Your task to perform on an android device: add a label to a message in the gmail app Image 0: 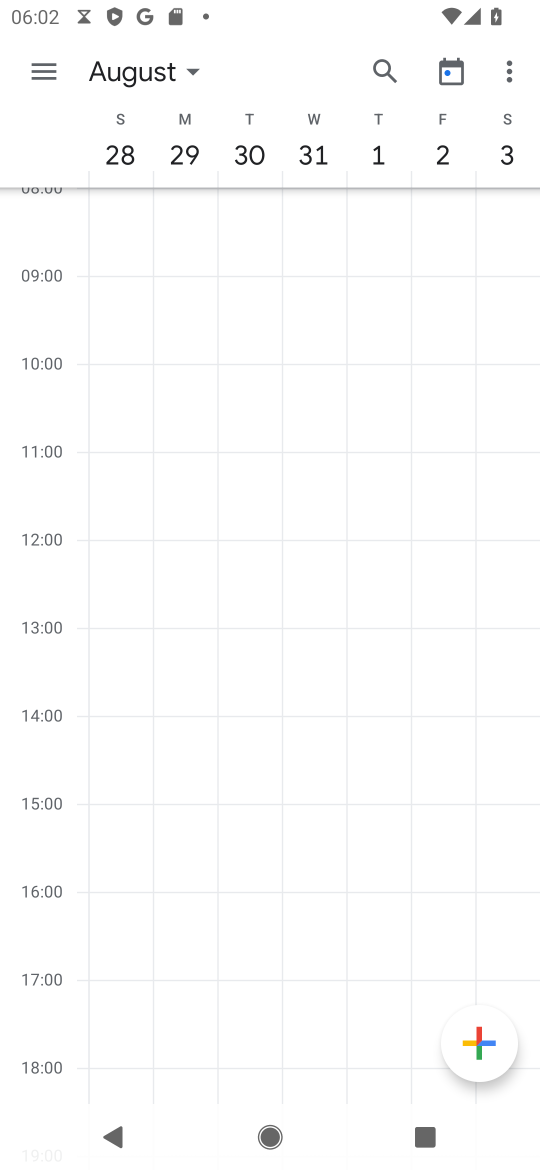
Step 0: press home button
Your task to perform on an android device: add a label to a message in the gmail app Image 1: 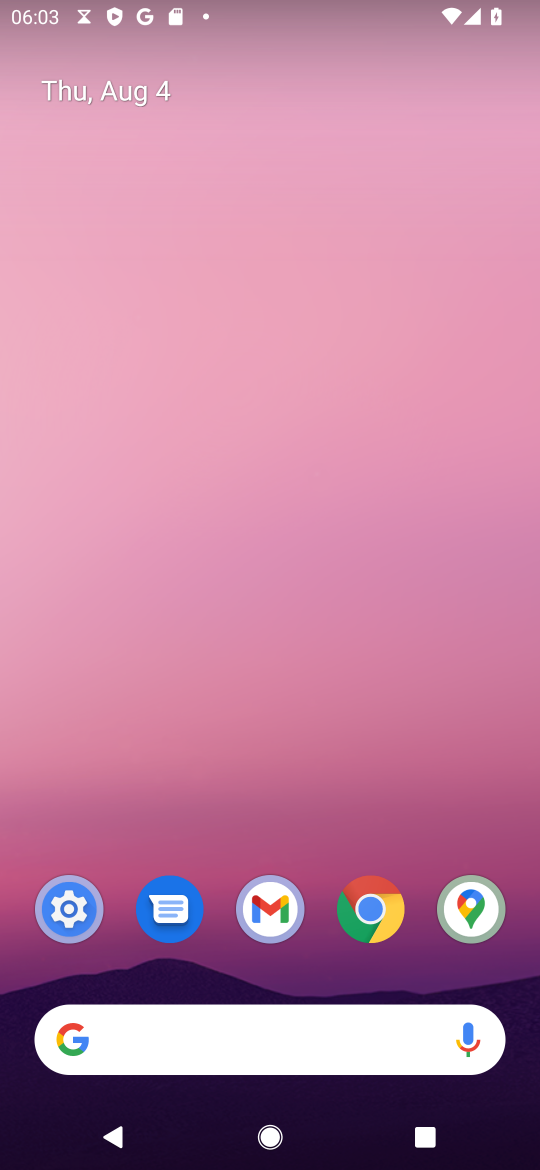
Step 1: click (271, 899)
Your task to perform on an android device: add a label to a message in the gmail app Image 2: 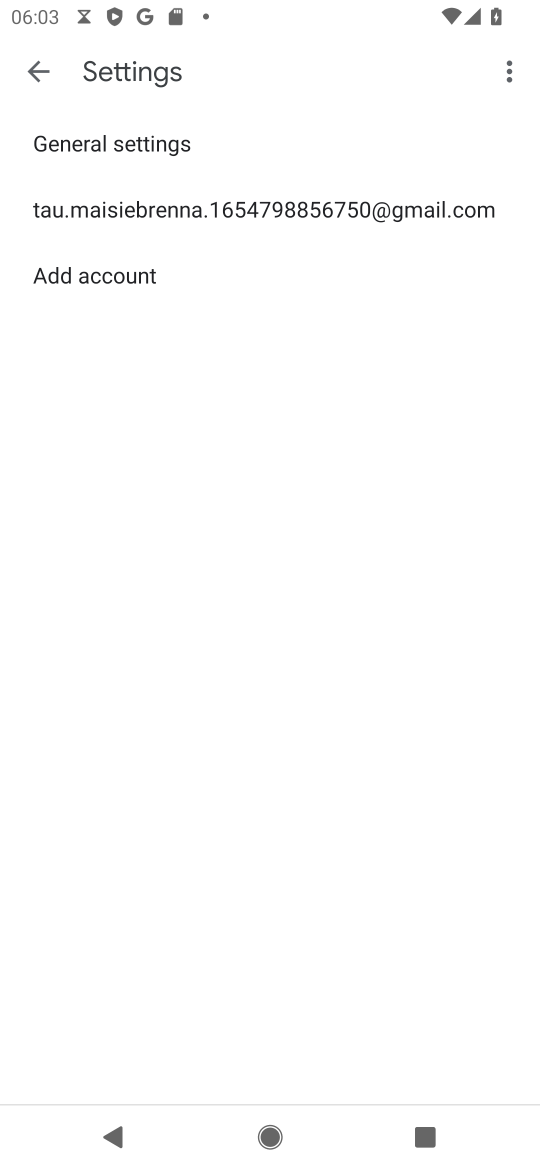
Step 2: click (32, 69)
Your task to perform on an android device: add a label to a message in the gmail app Image 3: 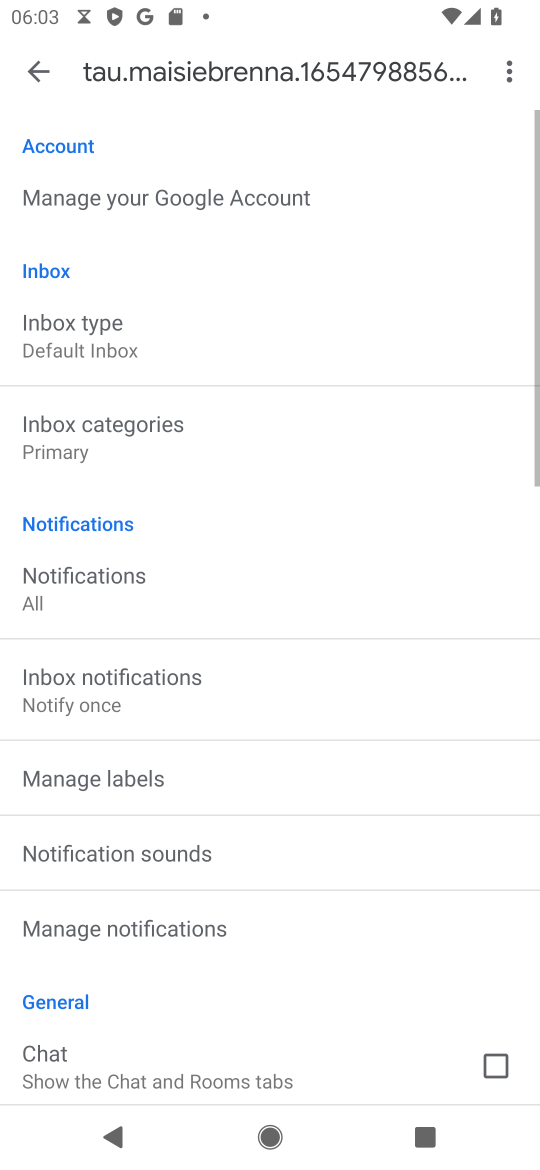
Step 3: click (32, 69)
Your task to perform on an android device: add a label to a message in the gmail app Image 4: 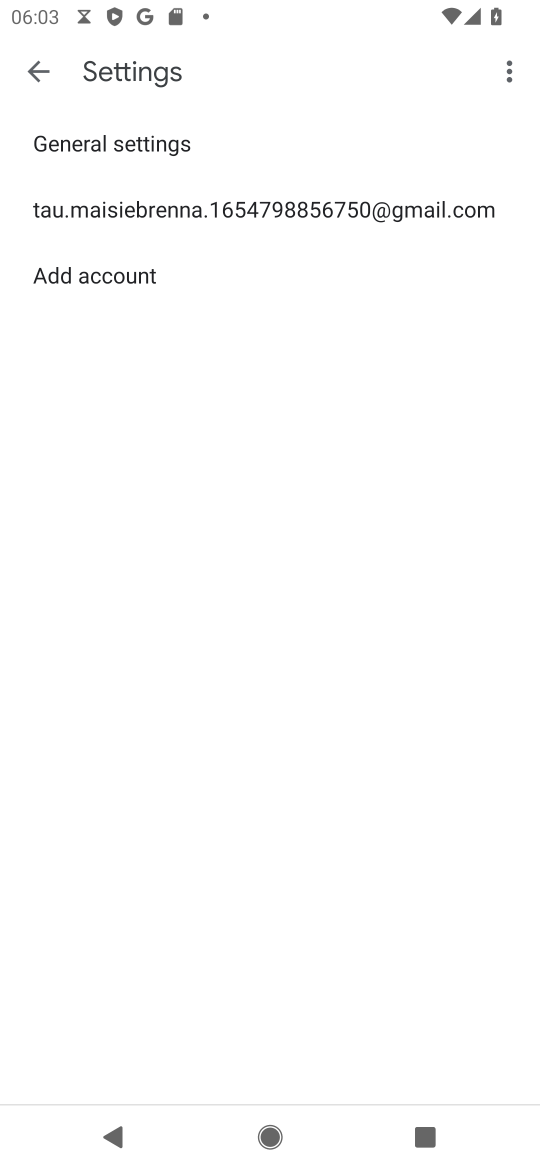
Step 4: click (32, 67)
Your task to perform on an android device: add a label to a message in the gmail app Image 5: 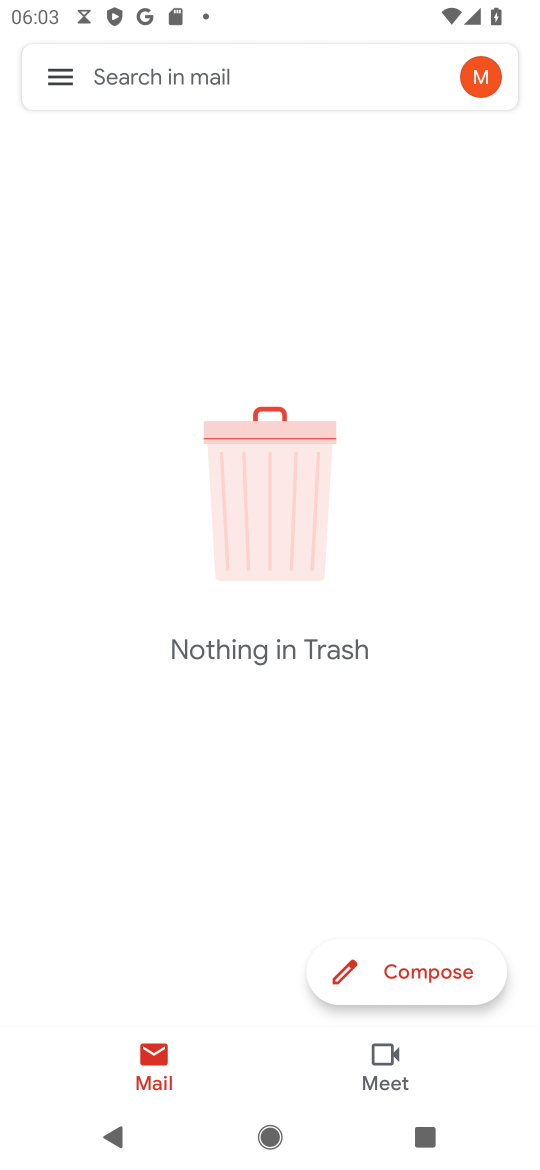
Step 5: click (63, 78)
Your task to perform on an android device: add a label to a message in the gmail app Image 6: 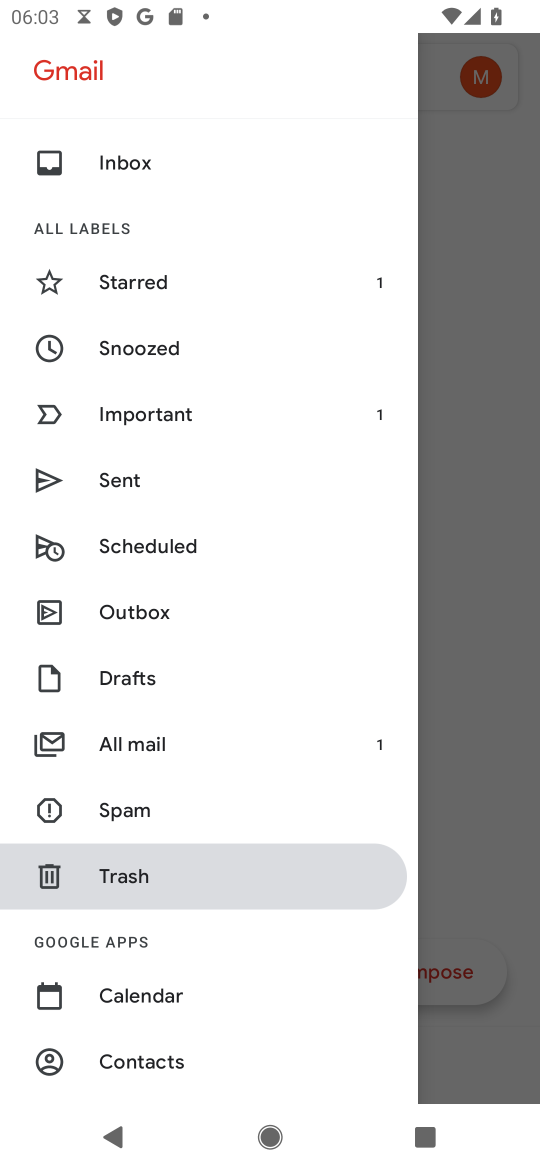
Step 6: click (170, 164)
Your task to perform on an android device: add a label to a message in the gmail app Image 7: 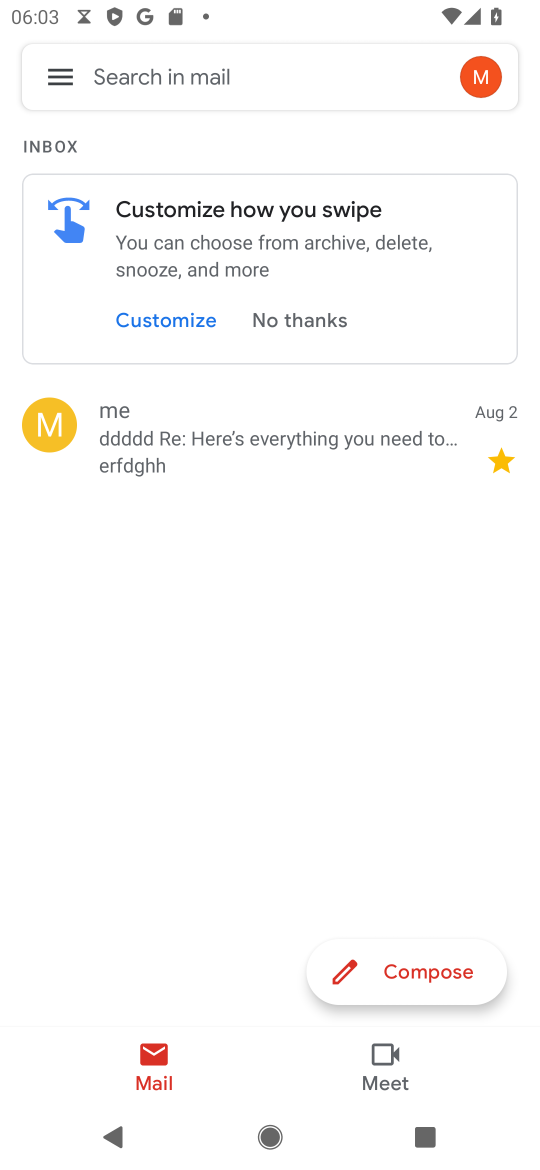
Step 7: click (277, 441)
Your task to perform on an android device: add a label to a message in the gmail app Image 8: 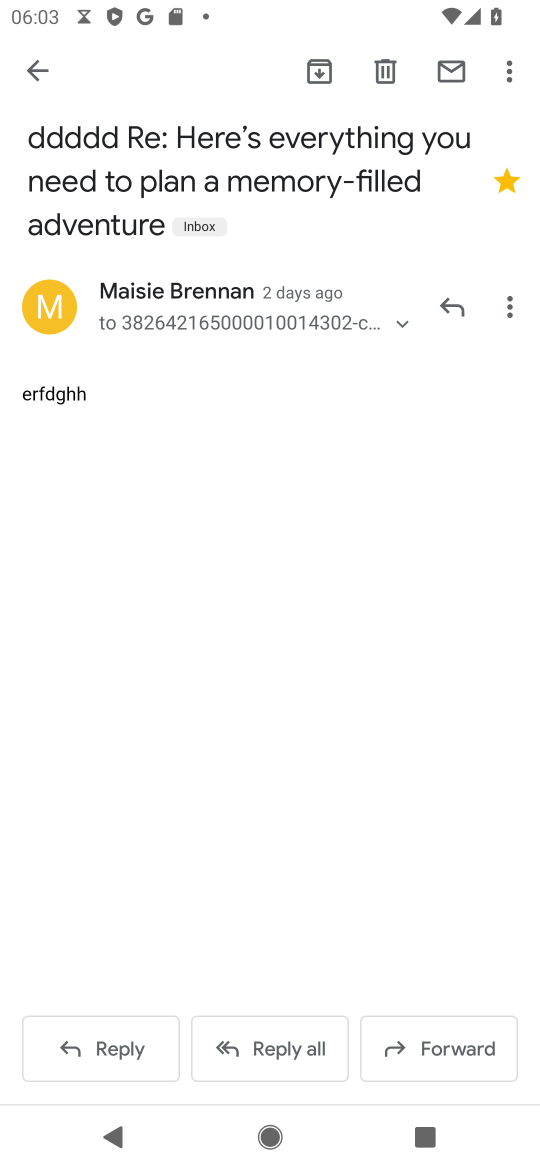
Step 8: click (199, 223)
Your task to perform on an android device: add a label to a message in the gmail app Image 9: 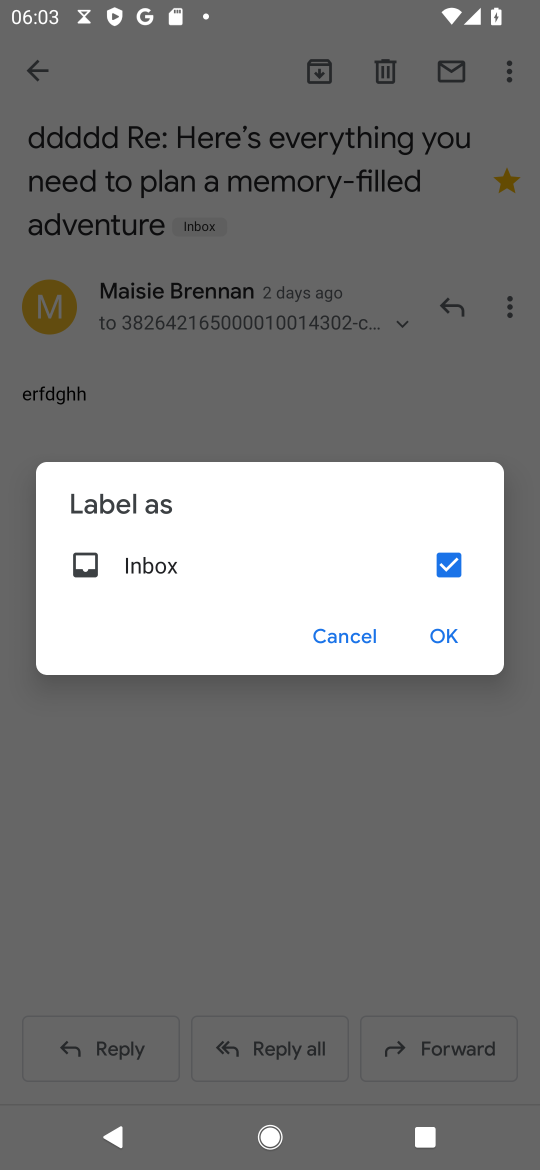
Step 9: task complete